Your task to perform on an android device: Clear the shopping cart on costco.com. Add "acer nitro" to the cart on costco.com Image 0: 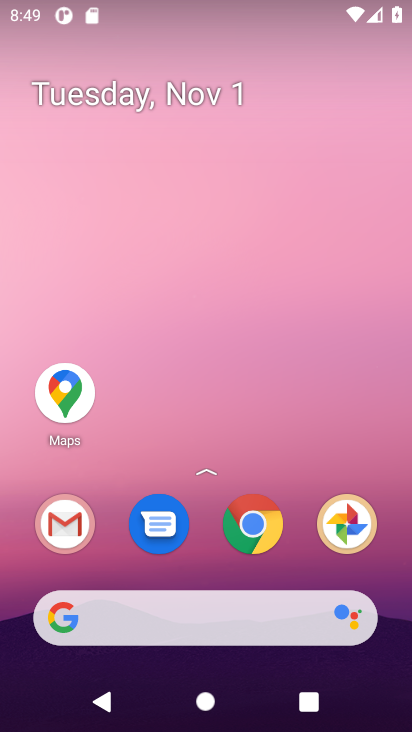
Step 0: press home button
Your task to perform on an android device: Clear the shopping cart on costco.com. Add "acer nitro" to the cart on costco.com Image 1: 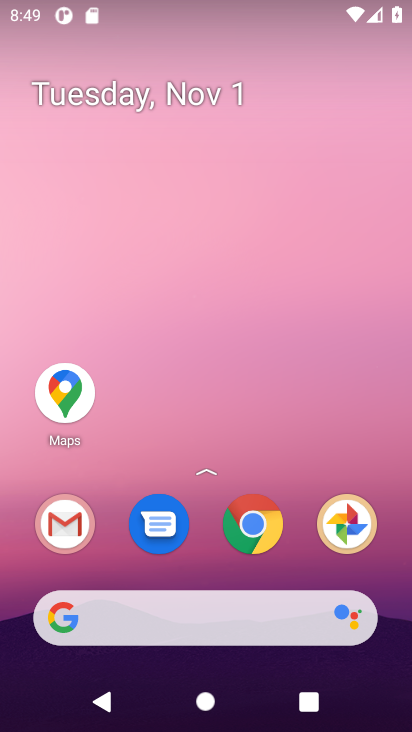
Step 1: click (91, 609)
Your task to perform on an android device: Clear the shopping cart on costco.com. Add "acer nitro" to the cart on costco.com Image 2: 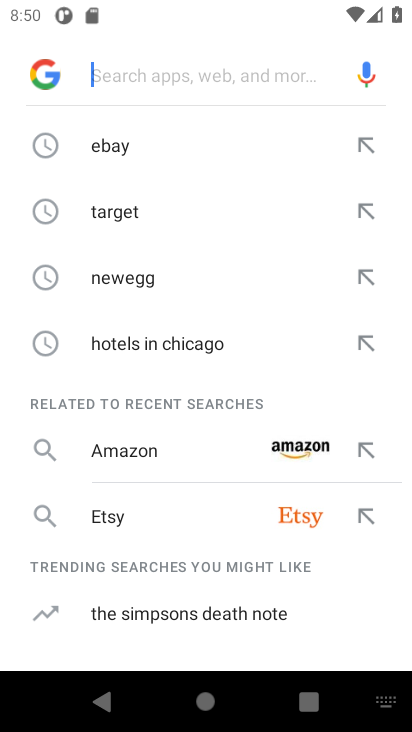
Step 2: type "costco.com"
Your task to perform on an android device: Clear the shopping cart on costco.com. Add "acer nitro" to the cart on costco.com Image 3: 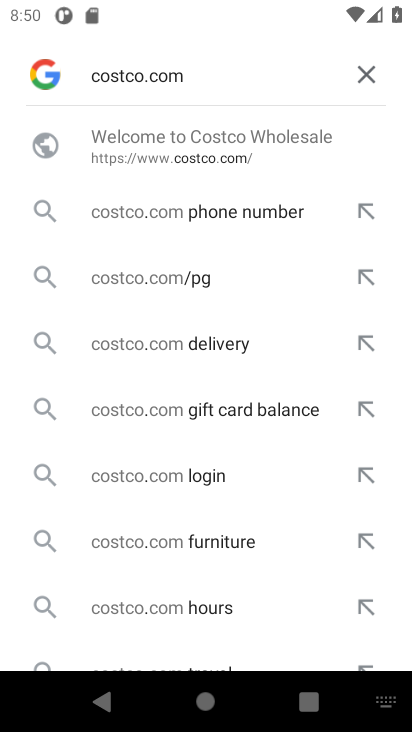
Step 3: press enter
Your task to perform on an android device: Clear the shopping cart on costco.com. Add "acer nitro" to the cart on costco.com Image 4: 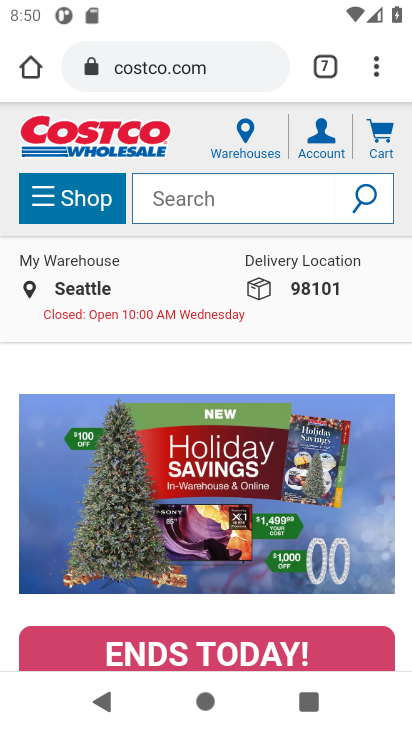
Step 4: click (377, 134)
Your task to perform on an android device: Clear the shopping cart on costco.com. Add "acer nitro" to the cart on costco.com Image 5: 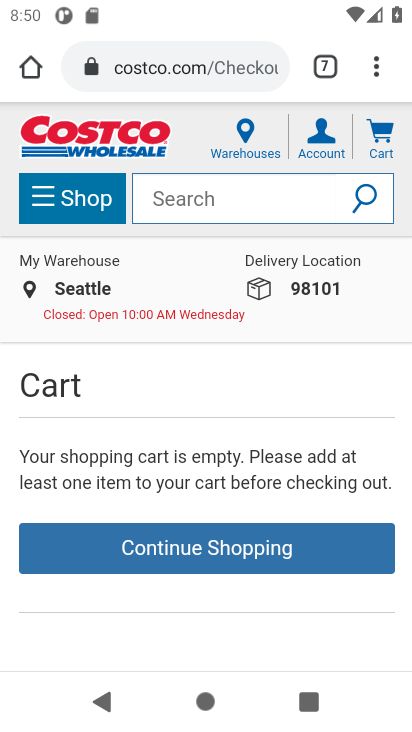
Step 5: click (163, 197)
Your task to perform on an android device: Clear the shopping cart on costco.com. Add "acer nitro" to the cart on costco.com Image 6: 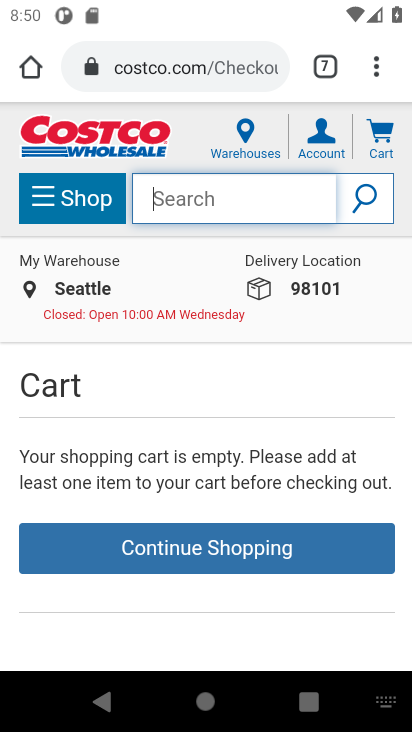
Step 6: type "acer nitro"
Your task to perform on an android device: Clear the shopping cart on costco.com. Add "acer nitro" to the cart on costco.com Image 7: 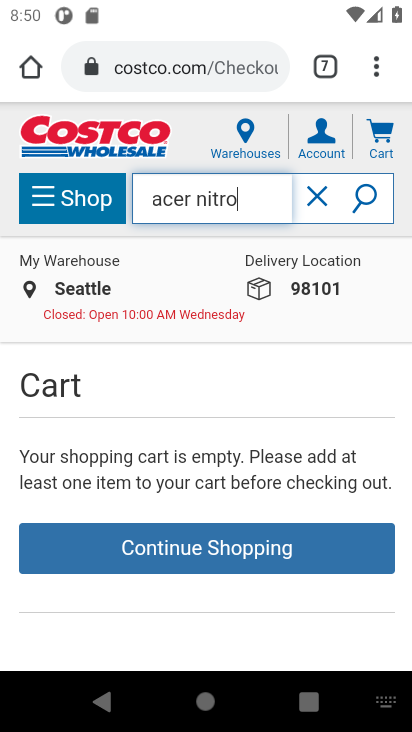
Step 7: press enter
Your task to perform on an android device: Clear the shopping cart on costco.com. Add "acer nitro" to the cart on costco.com Image 8: 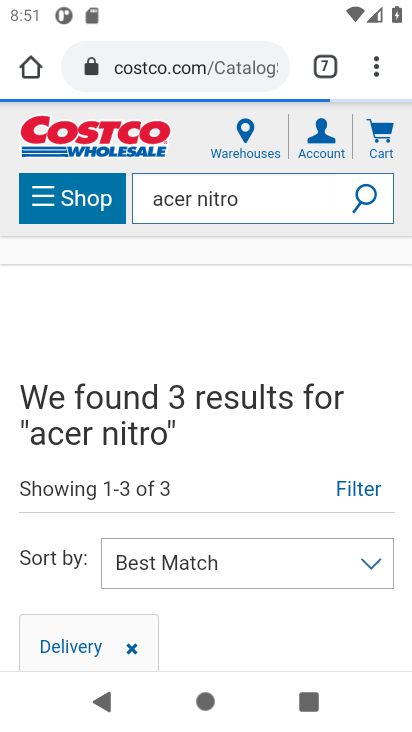
Step 8: drag from (240, 565) to (249, 320)
Your task to perform on an android device: Clear the shopping cart on costco.com. Add "acer nitro" to the cart on costco.com Image 9: 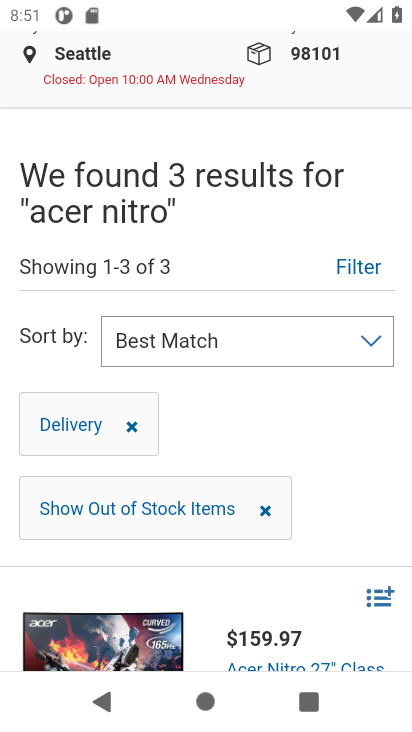
Step 9: drag from (235, 610) to (249, 323)
Your task to perform on an android device: Clear the shopping cart on costco.com. Add "acer nitro" to the cart on costco.com Image 10: 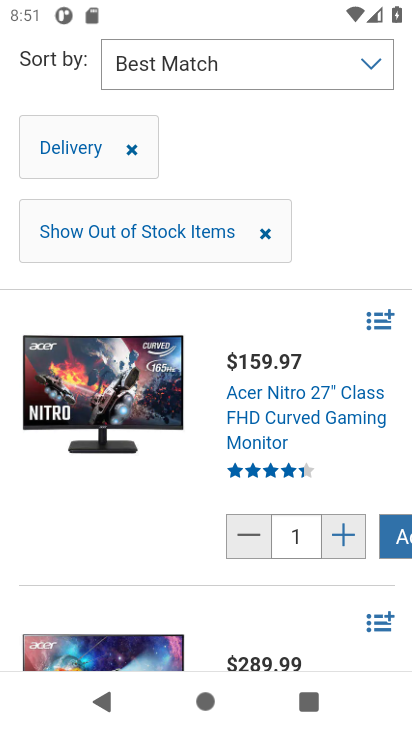
Step 10: drag from (186, 549) to (198, 378)
Your task to perform on an android device: Clear the shopping cart on costco.com. Add "acer nitro" to the cart on costco.com Image 11: 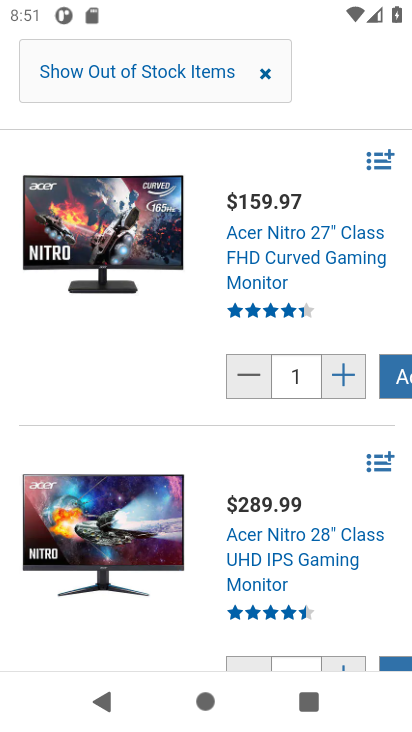
Step 11: click (393, 380)
Your task to perform on an android device: Clear the shopping cart on costco.com. Add "acer nitro" to the cart on costco.com Image 12: 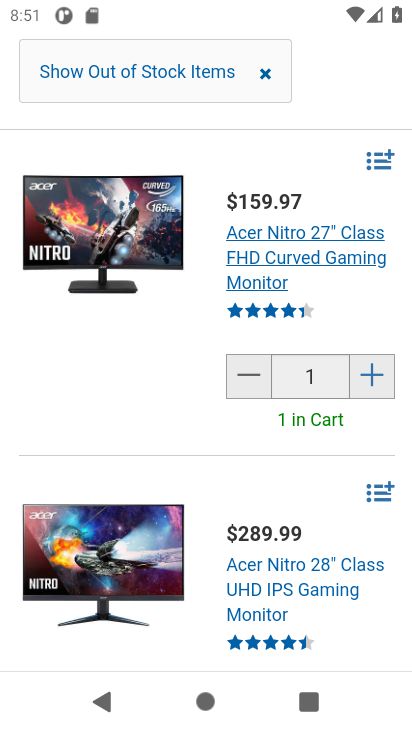
Step 12: task complete